Your task to perform on an android device: Open calendar and show me the fourth week of next month Image 0: 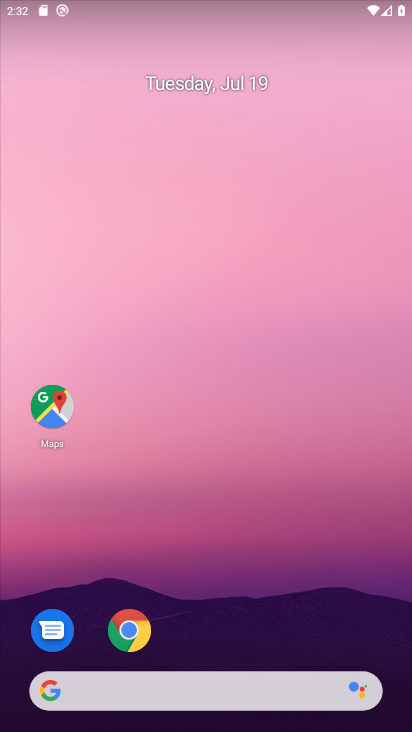
Step 0: drag from (245, 566) to (231, 61)
Your task to perform on an android device: Open calendar and show me the fourth week of next month Image 1: 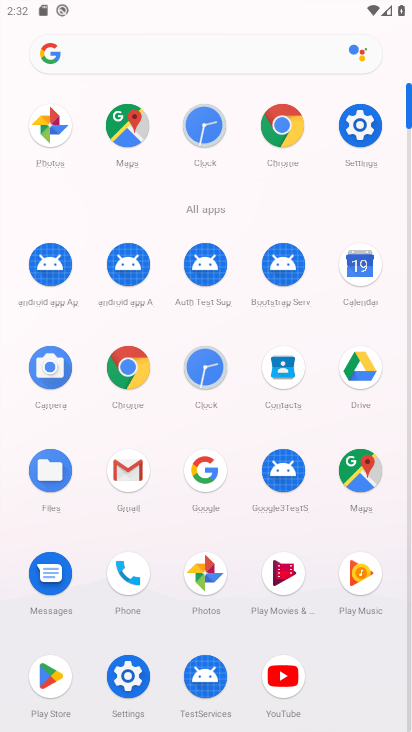
Step 1: click (358, 251)
Your task to perform on an android device: Open calendar and show me the fourth week of next month Image 2: 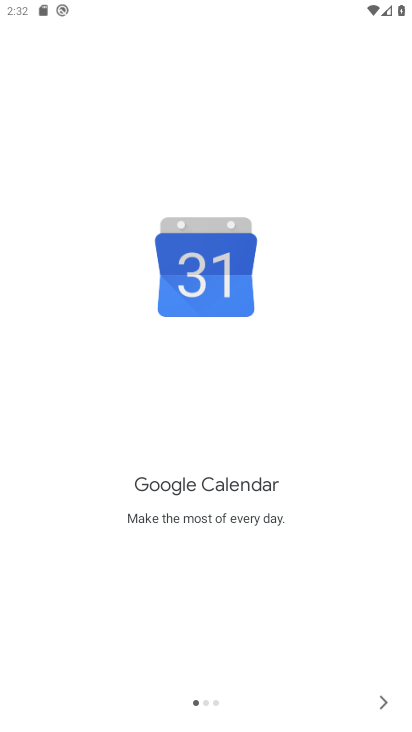
Step 2: click (380, 702)
Your task to perform on an android device: Open calendar and show me the fourth week of next month Image 3: 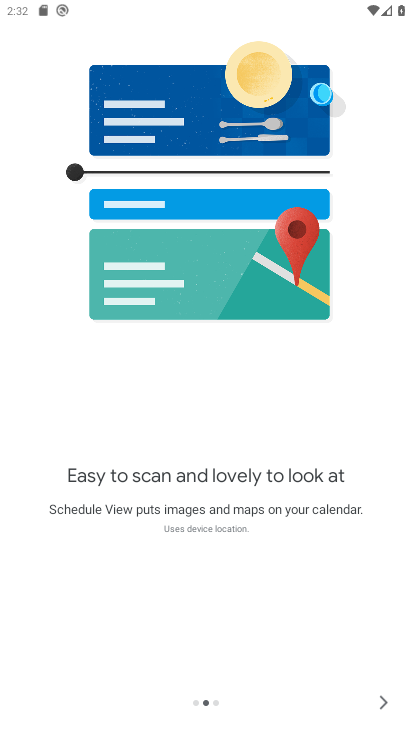
Step 3: click (380, 702)
Your task to perform on an android device: Open calendar and show me the fourth week of next month Image 4: 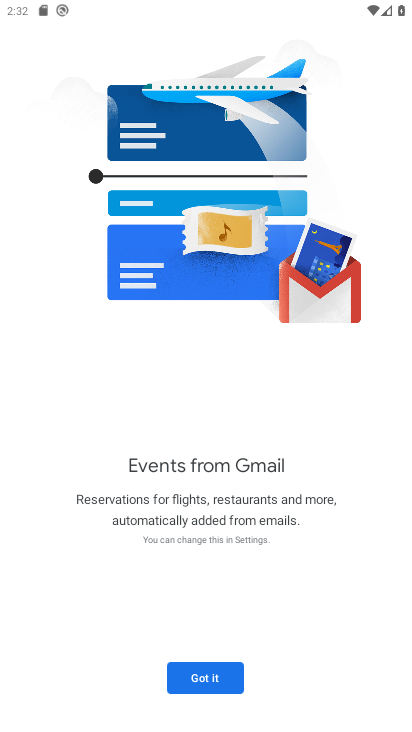
Step 4: click (205, 674)
Your task to perform on an android device: Open calendar and show me the fourth week of next month Image 5: 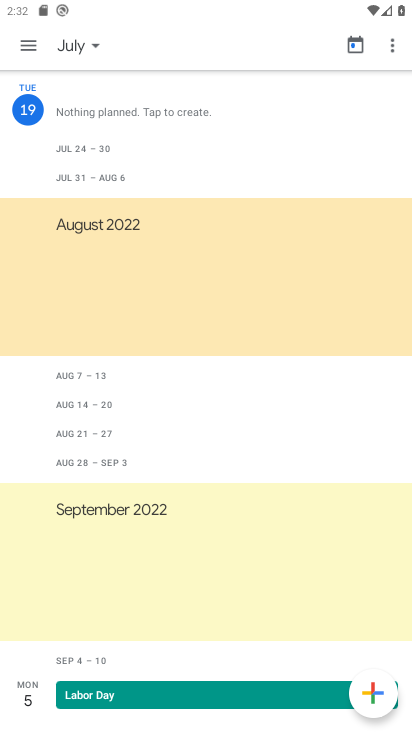
Step 5: click (32, 40)
Your task to perform on an android device: Open calendar and show me the fourth week of next month Image 6: 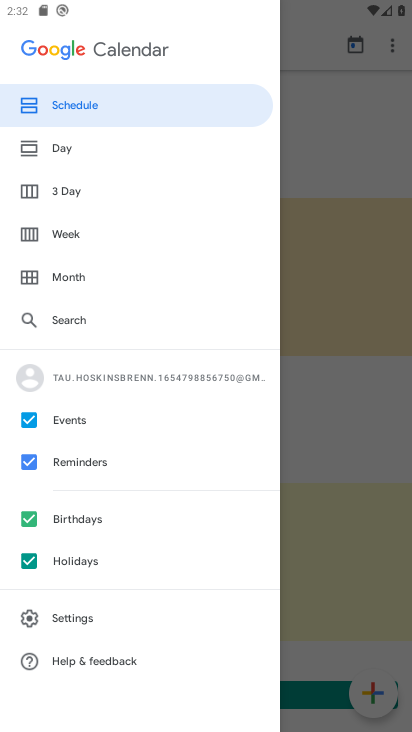
Step 6: click (65, 229)
Your task to perform on an android device: Open calendar and show me the fourth week of next month Image 7: 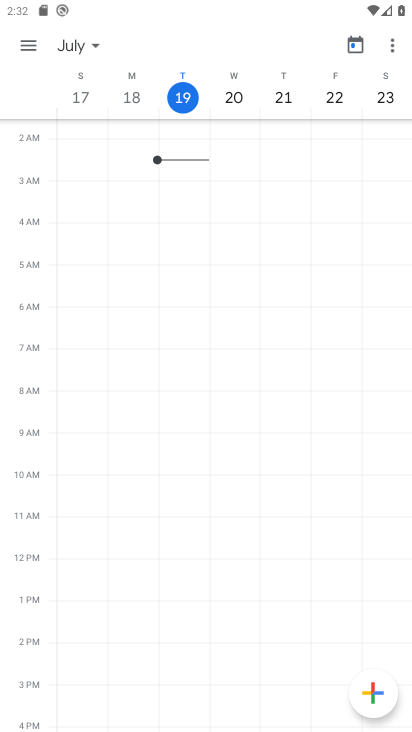
Step 7: click (89, 40)
Your task to perform on an android device: Open calendar and show me the fourth week of next month Image 8: 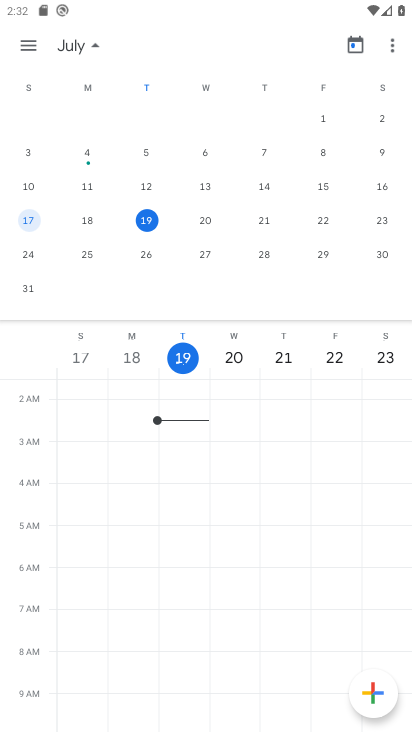
Step 8: drag from (378, 197) to (6, 136)
Your task to perform on an android device: Open calendar and show me the fourth week of next month Image 9: 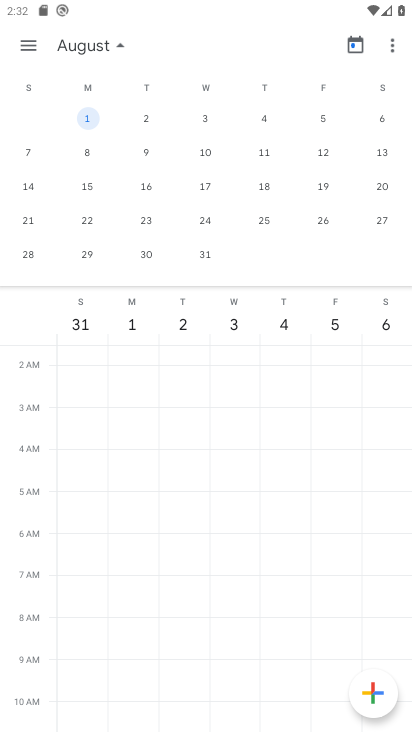
Step 9: click (88, 219)
Your task to perform on an android device: Open calendar and show me the fourth week of next month Image 10: 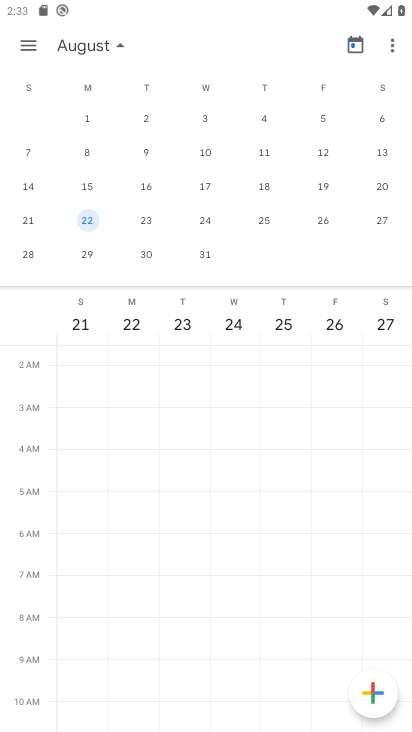
Step 10: task complete